Your task to perform on an android device: turn vacation reply on in the gmail app Image 0: 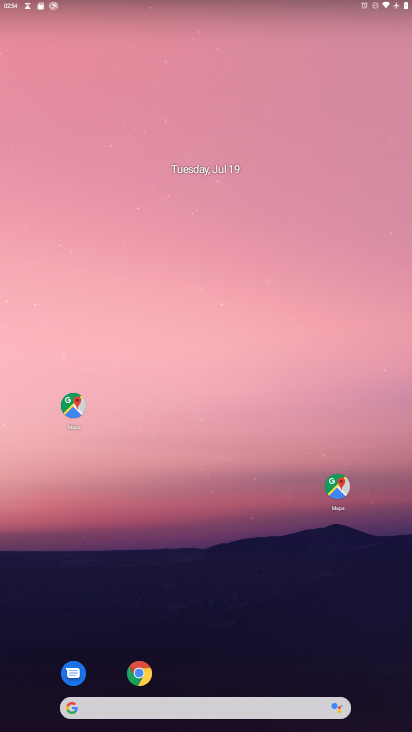
Step 0: drag from (226, 649) to (218, 213)
Your task to perform on an android device: turn vacation reply on in the gmail app Image 1: 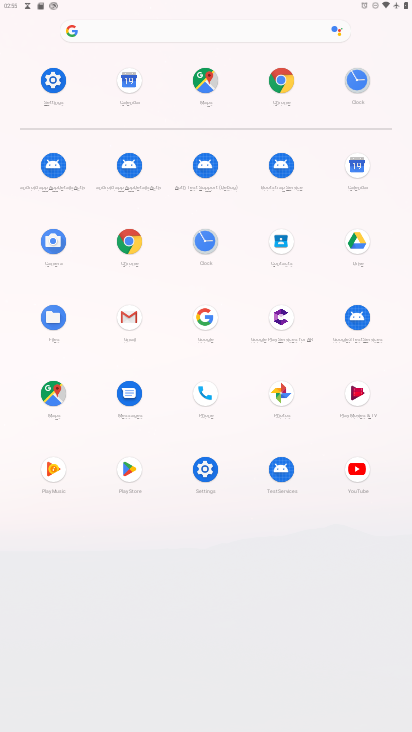
Step 1: click (136, 321)
Your task to perform on an android device: turn vacation reply on in the gmail app Image 2: 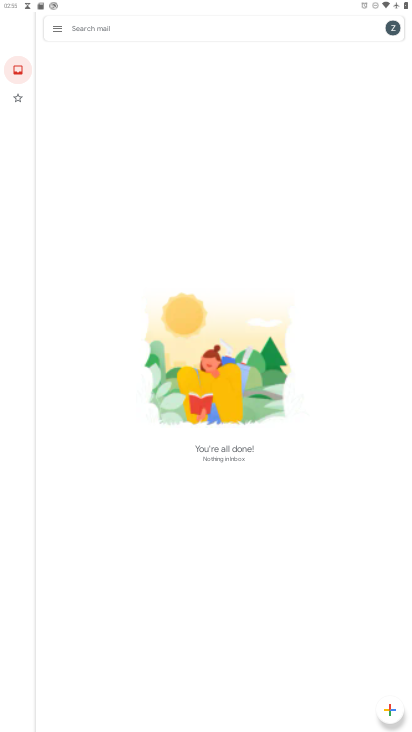
Step 2: click (61, 22)
Your task to perform on an android device: turn vacation reply on in the gmail app Image 3: 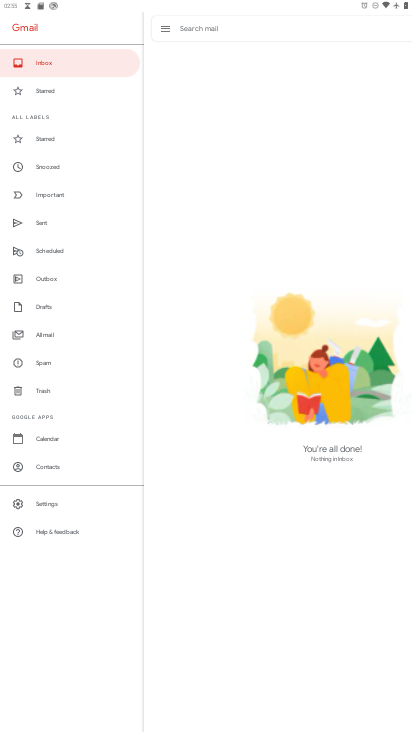
Step 3: click (55, 489)
Your task to perform on an android device: turn vacation reply on in the gmail app Image 4: 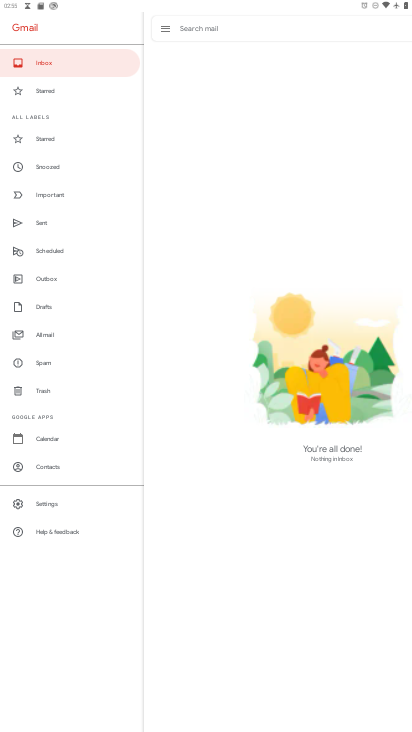
Step 4: click (57, 499)
Your task to perform on an android device: turn vacation reply on in the gmail app Image 5: 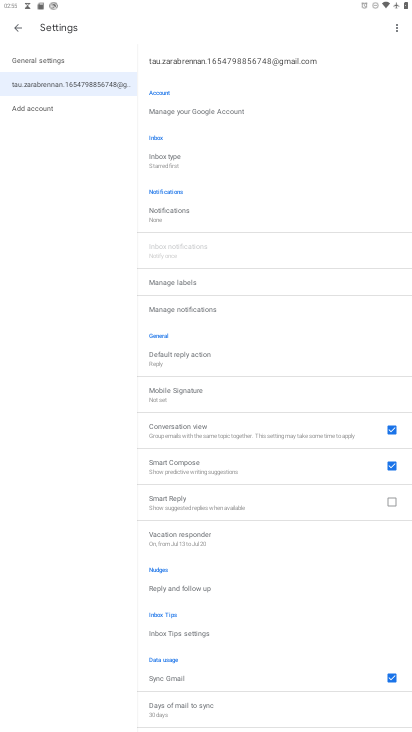
Step 5: click (186, 533)
Your task to perform on an android device: turn vacation reply on in the gmail app Image 6: 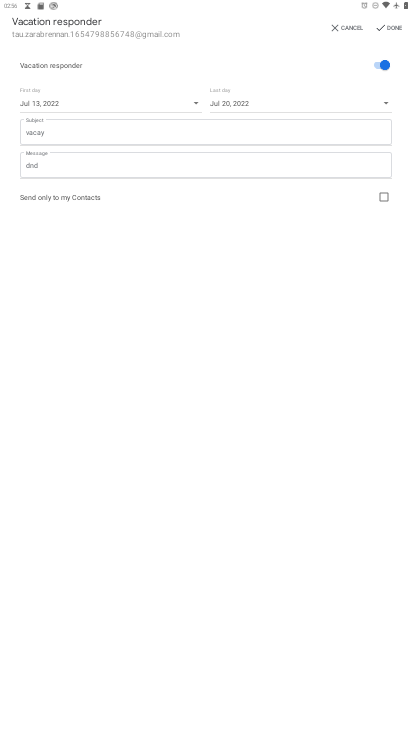
Step 6: task complete